Your task to perform on an android device: empty trash in google photos Image 0: 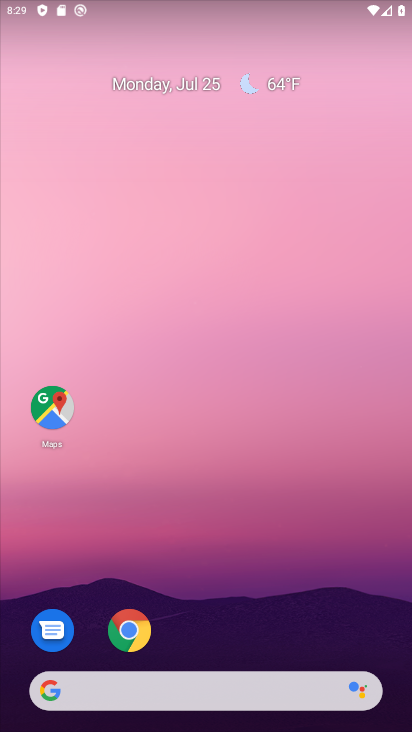
Step 0: drag from (385, 652) to (374, 240)
Your task to perform on an android device: empty trash in google photos Image 1: 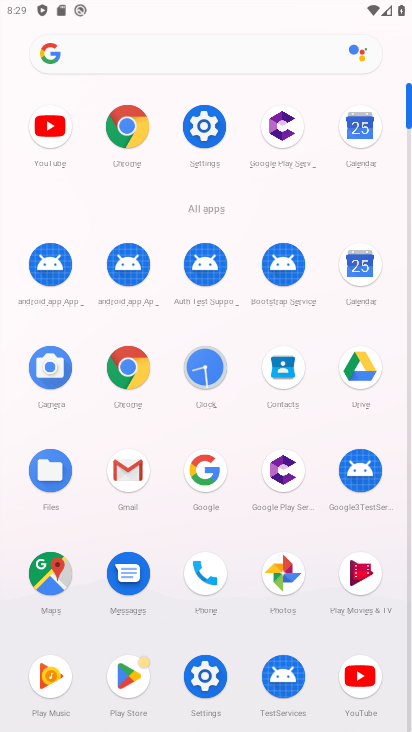
Step 1: click (283, 569)
Your task to perform on an android device: empty trash in google photos Image 2: 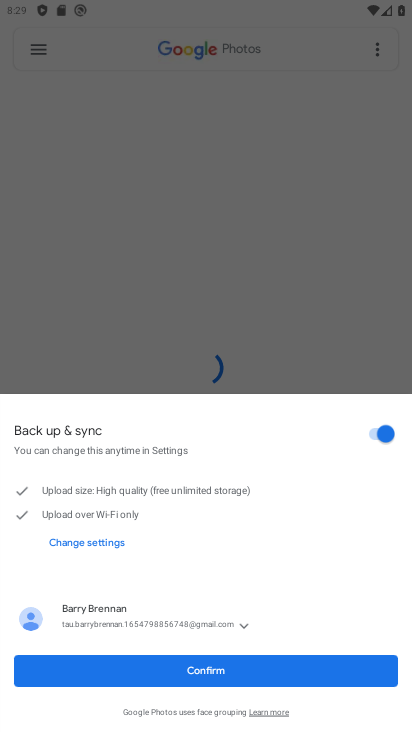
Step 2: click (207, 667)
Your task to perform on an android device: empty trash in google photos Image 3: 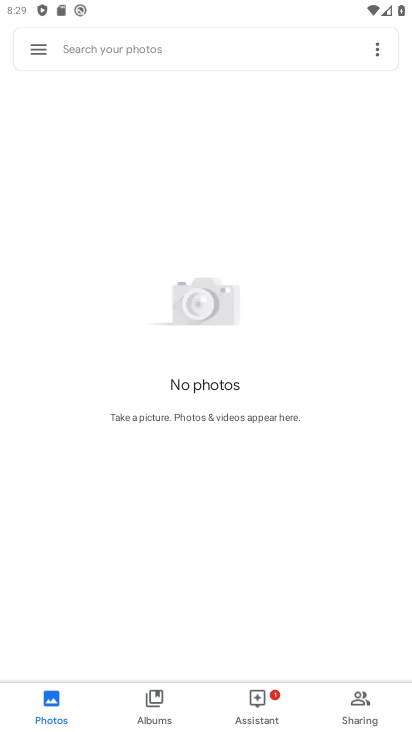
Step 3: click (31, 54)
Your task to perform on an android device: empty trash in google photos Image 4: 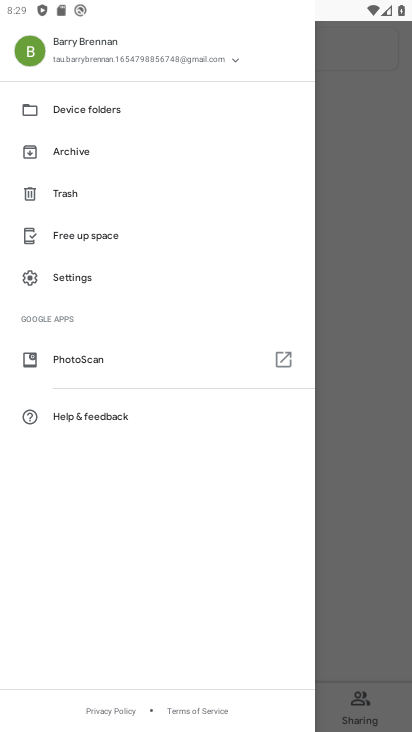
Step 4: click (64, 193)
Your task to perform on an android device: empty trash in google photos Image 5: 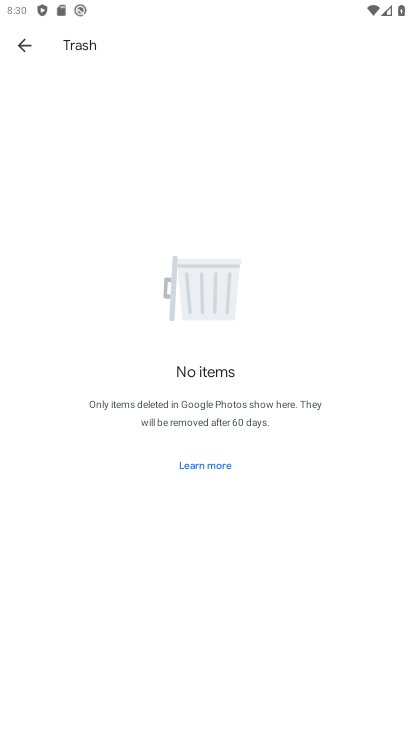
Step 5: task complete